Your task to perform on an android device: Go to settings Image 0: 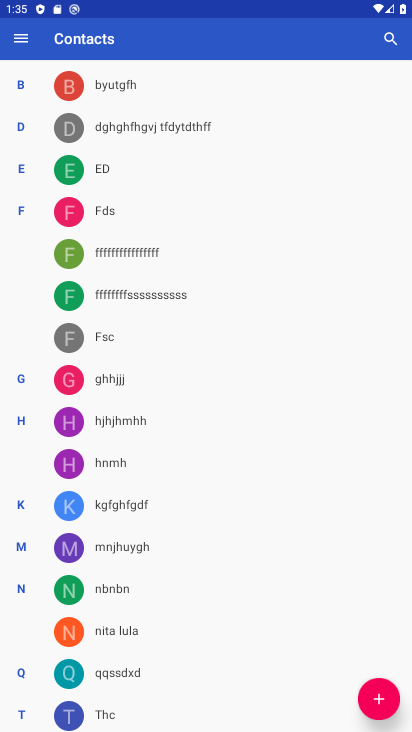
Step 0: press home button
Your task to perform on an android device: Go to settings Image 1: 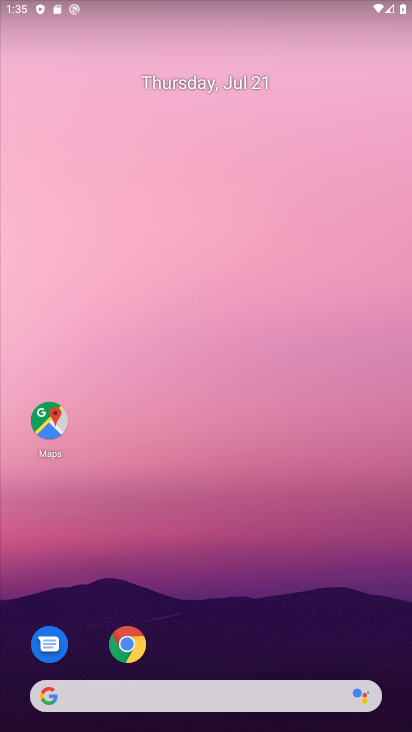
Step 1: drag from (264, 608) to (160, 55)
Your task to perform on an android device: Go to settings Image 2: 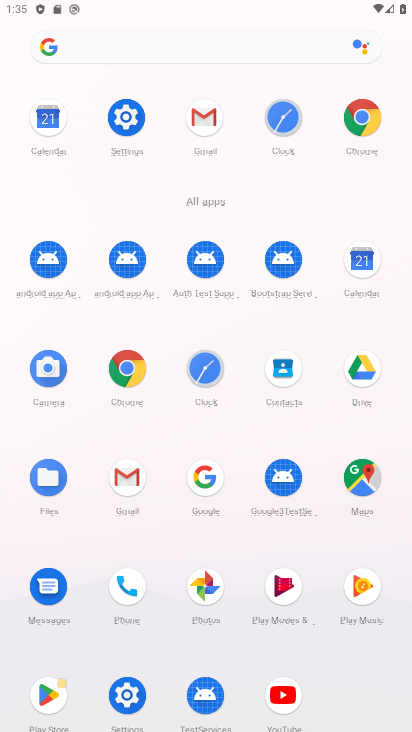
Step 2: click (121, 126)
Your task to perform on an android device: Go to settings Image 3: 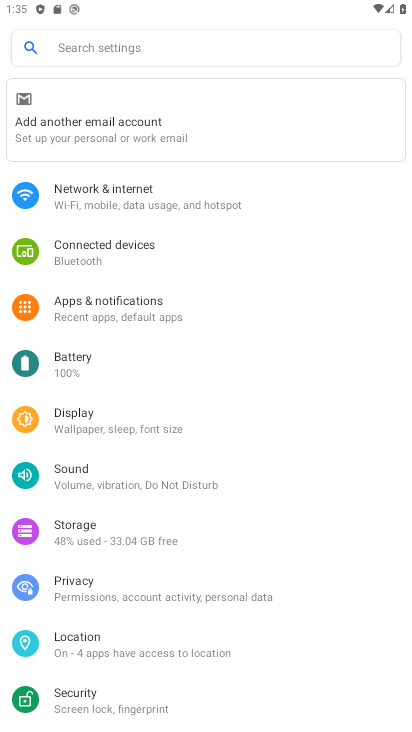
Step 3: task complete